Your task to perform on an android device: What is the recent news? Image 0: 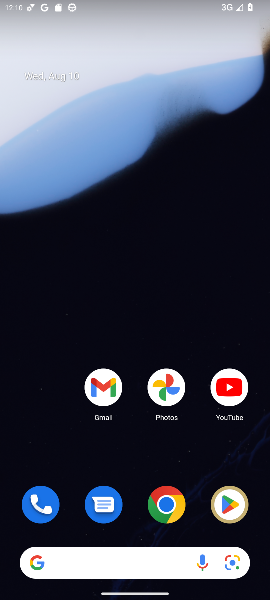
Step 0: press home button
Your task to perform on an android device: What is the recent news? Image 1: 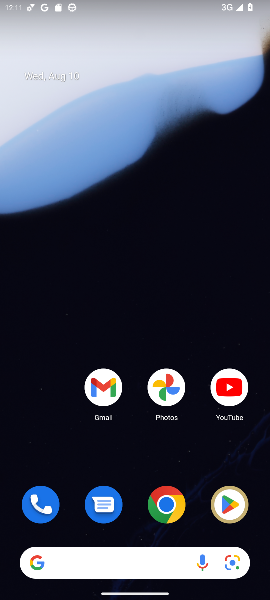
Step 1: drag from (146, 501) to (147, 217)
Your task to perform on an android device: What is the recent news? Image 2: 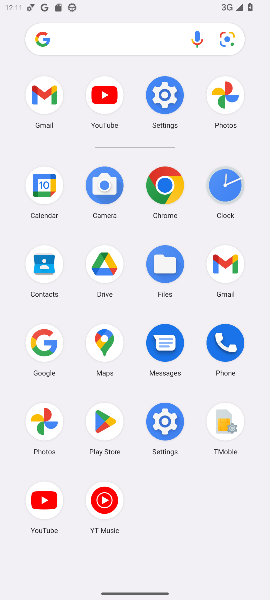
Step 2: click (45, 353)
Your task to perform on an android device: What is the recent news? Image 3: 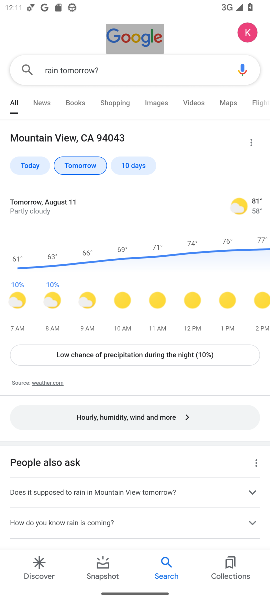
Step 3: click (152, 70)
Your task to perform on an android device: What is the recent news? Image 4: 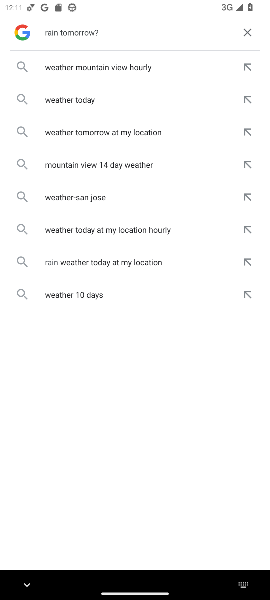
Step 4: press back button
Your task to perform on an android device: What is the recent news? Image 5: 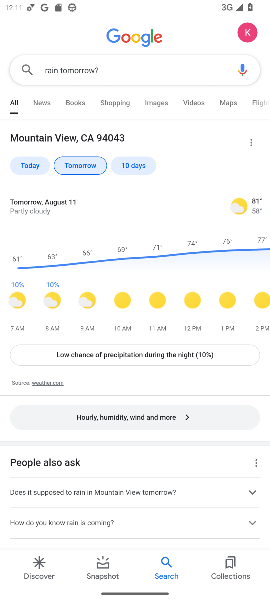
Step 5: press back button
Your task to perform on an android device: What is the recent news? Image 6: 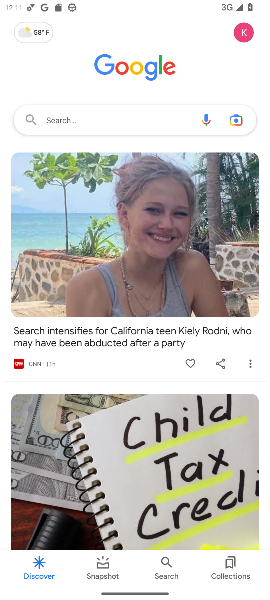
Step 6: click (119, 113)
Your task to perform on an android device: What is the recent news? Image 7: 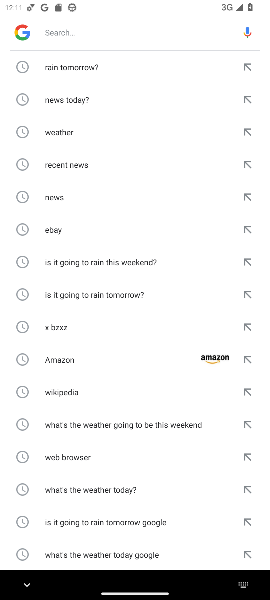
Step 7: type " recent news?"
Your task to perform on an android device: What is the recent news? Image 8: 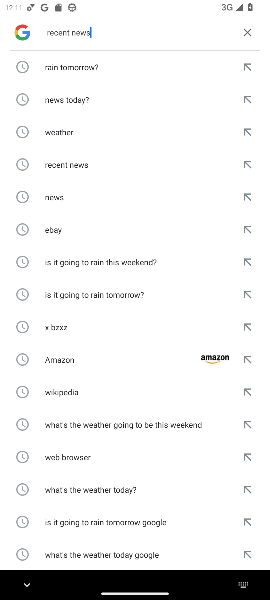
Step 8: press enter
Your task to perform on an android device: What is the recent news? Image 9: 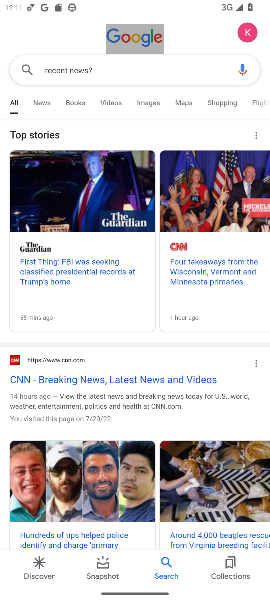
Step 9: task complete